Your task to perform on an android device: turn off data saver in the chrome app Image 0: 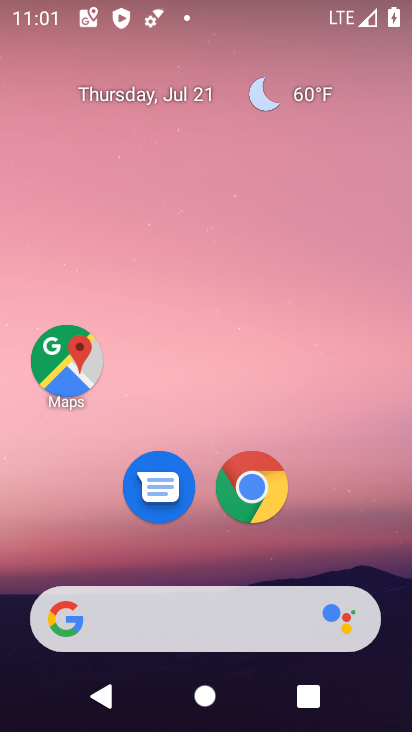
Step 0: click (260, 476)
Your task to perform on an android device: turn off data saver in the chrome app Image 1: 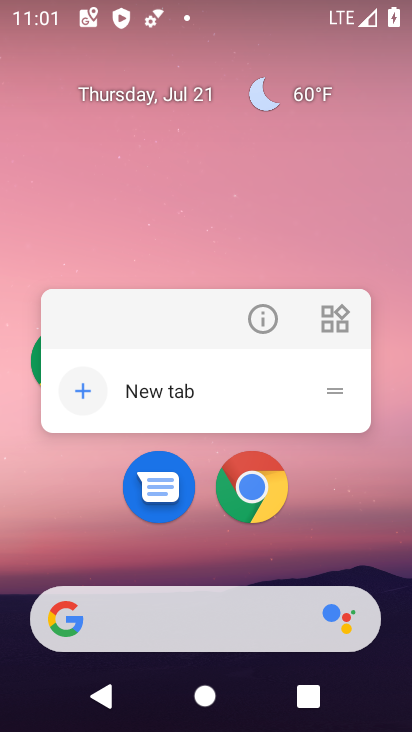
Step 1: click (259, 488)
Your task to perform on an android device: turn off data saver in the chrome app Image 2: 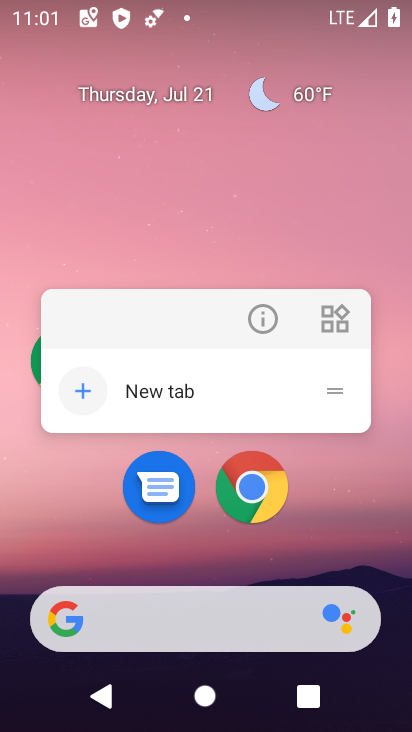
Step 2: click (265, 485)
Your task to perform on an android device: turn off data saver in the chrome app Image 3: 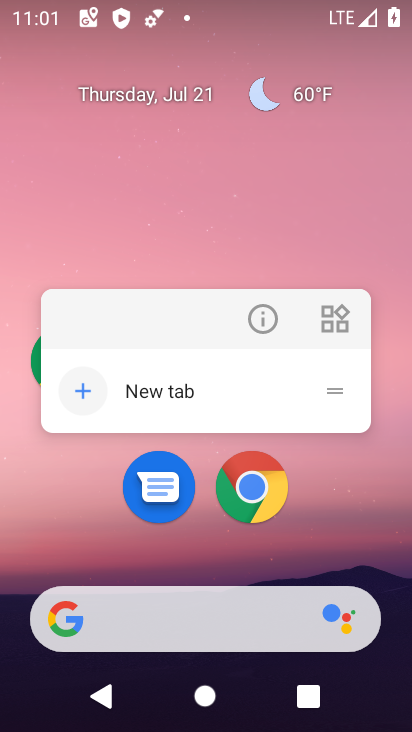
Step 3: click (247, 486)
Your task to perform on an android device: turn off data saver in the chrome app Image 4: 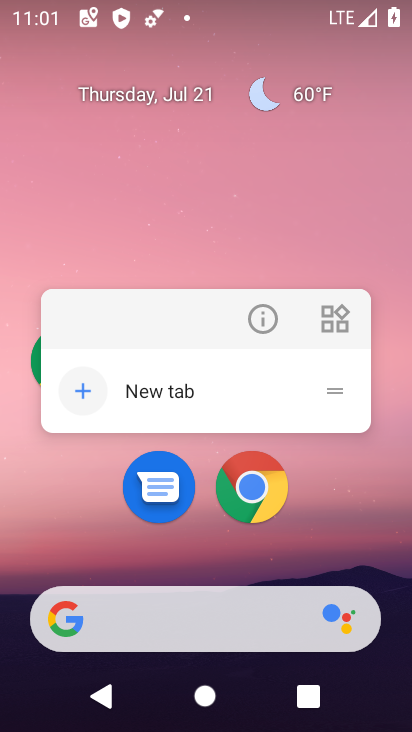
Step 4: click (267, 484)
Your task to perform on an android device: turn off data saver in the chrome app Image 5: 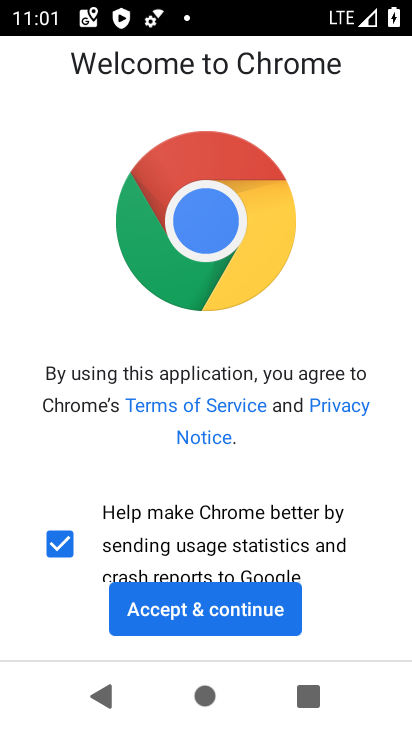
Step 5: click (170, 618)
Your task to perform on an android device: turn off data saver in the chrome app Image 6: 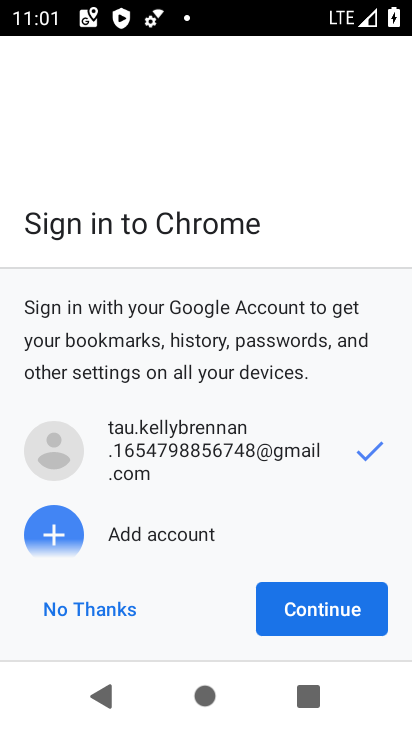
Step 6: click (317, 608)
Your task to perform on an android device: turn off data saver in the chrome app Image 7: 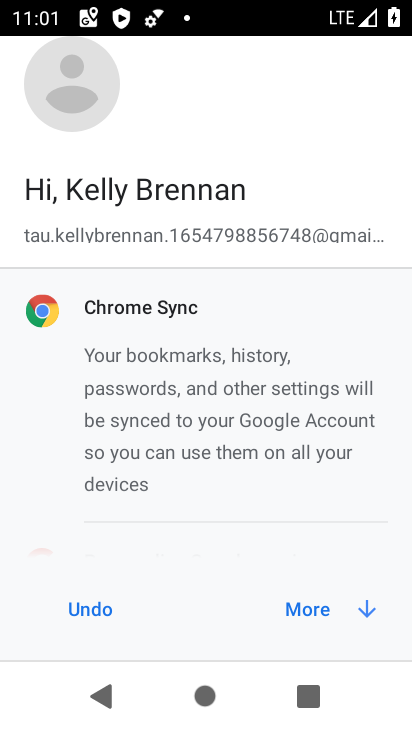
Step 7: click (318, 604)
Your task to perform on an android device: turn off data saver in the chrome app Image 8: 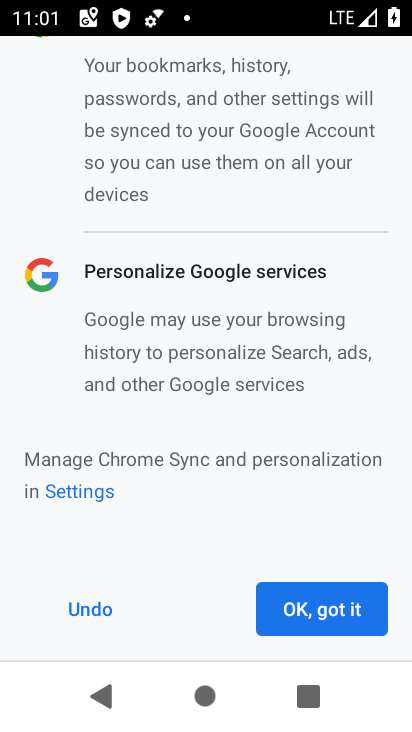
Step 8: click (321, 608)
Your task to perform on an android device: turn off data saver in the chrome app Image 9: 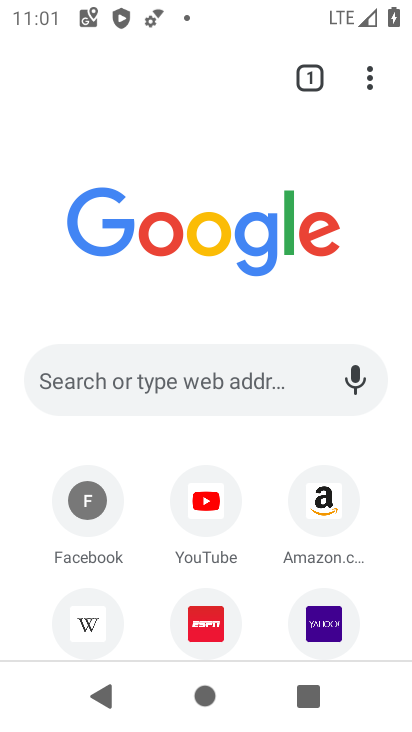
Step 9: drag from (385, 69) to (117, 547)
Your task to perform on an android device: turn off data saver in the chrome app Image 10: 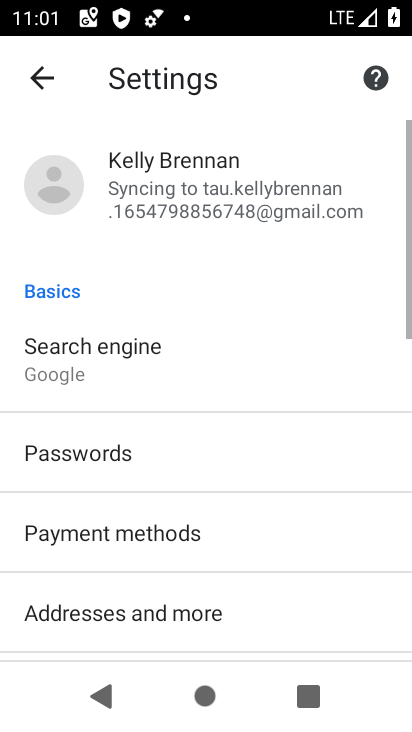
Step 10: drag from (147, 599) to (214, 98)
Your task to perform on an android device: turn off data saver in the chrome app Image 11: 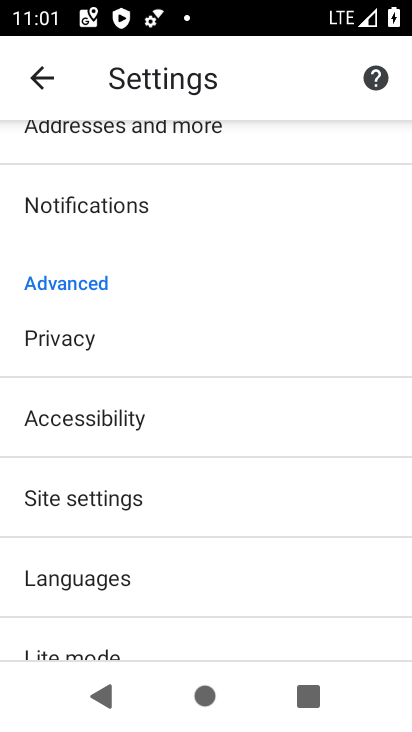
Step 11: drag from (134, 604) to (212, 220)
Your task to perform on an android device: turn off data saver in the chrome app Image 12: 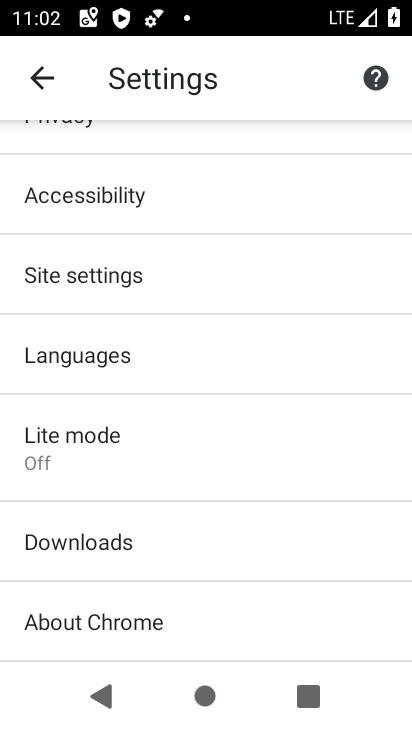
Step 12: click (206, 426)
Your task to perform on an android device: turn off data saver in the chrome app Image 13: 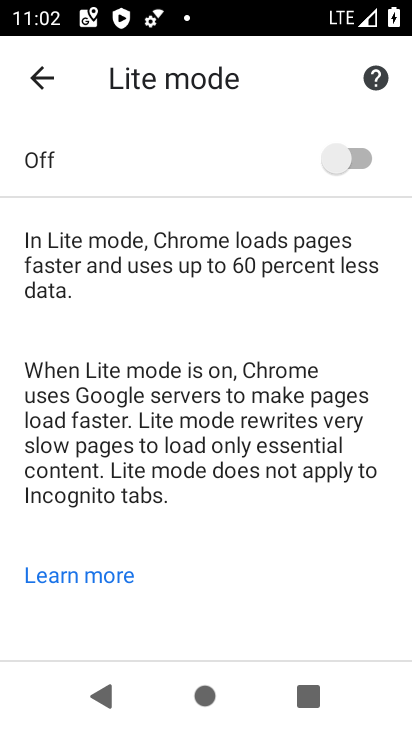
Step 13: task complete